Your task to perform on an android device: Open Amazon Image 0: 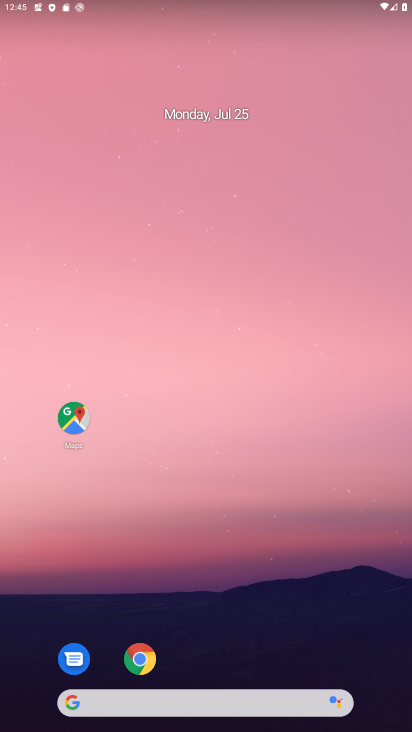
Step 0: drag from (256, 616) to (403, 41)
Your task to perform on an android device: Open Amazon Image 1: 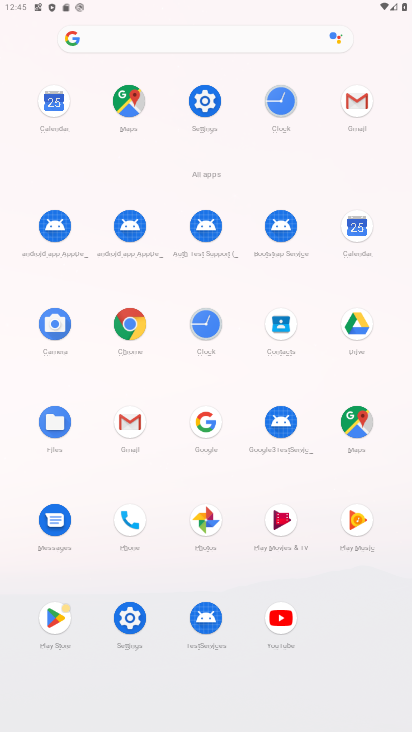
Step 1: click (138, 336)
Your task to perform on an android device: Open Amazon Image 2: 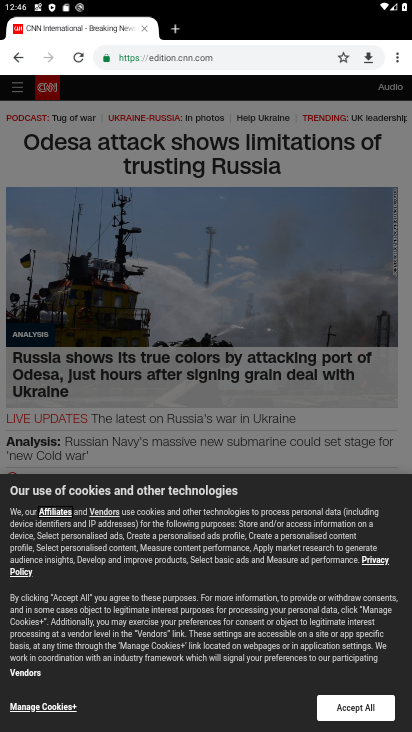
Step 2: click (27, 73)
Your task to perform on an android device: Open Amazon Image 3: 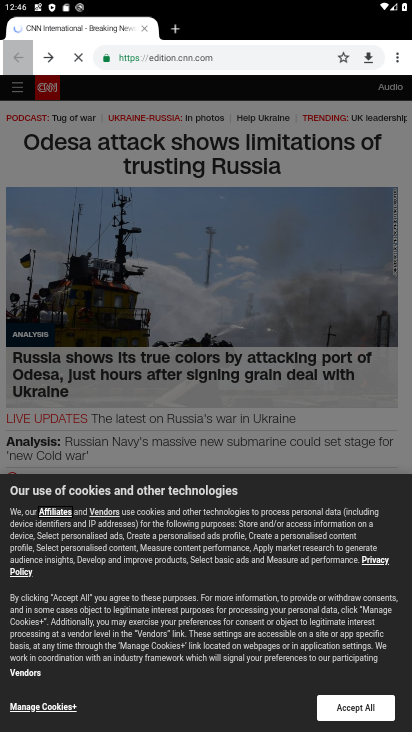
Step 3: click (25, 67)
Your task to perform on an android device: Open Amazon Image 4: 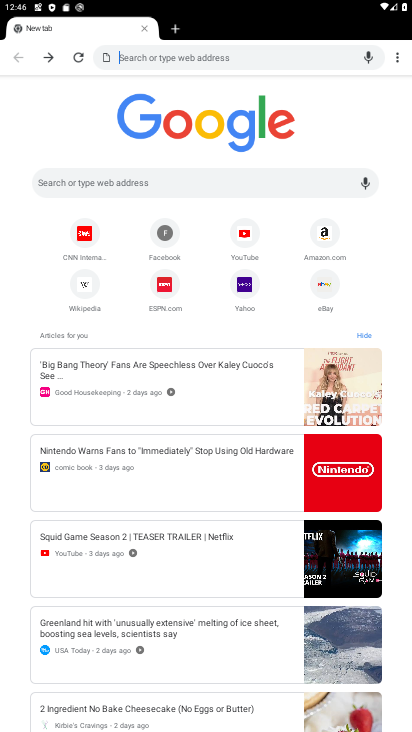
Step 4: click (327, 235)
Your task to perform on an android device: Open Amazon Image 5: 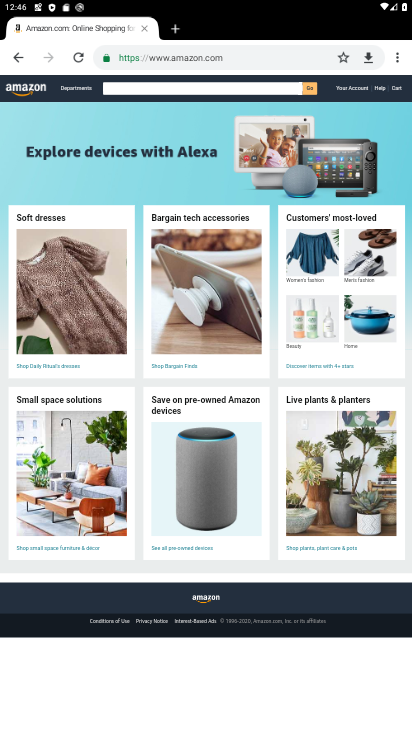
Step 5: task complete